Your task to perform on an android device: Go to Reddit.com Image 0: 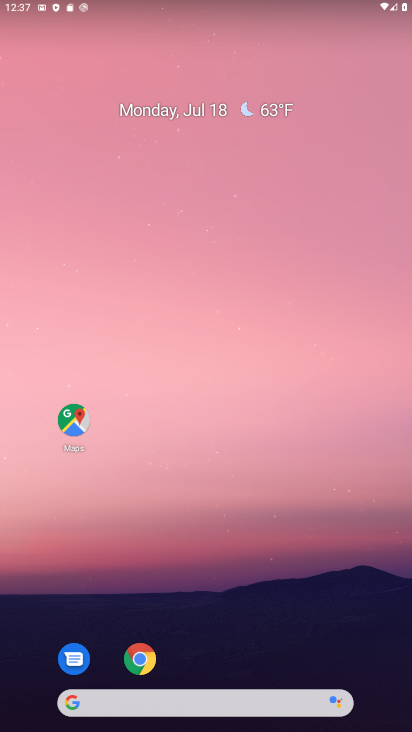
Step 0: drag from (202, 665) to (212, 252)
Your task to perform on an android device: Go to Reddit.com Image 1: 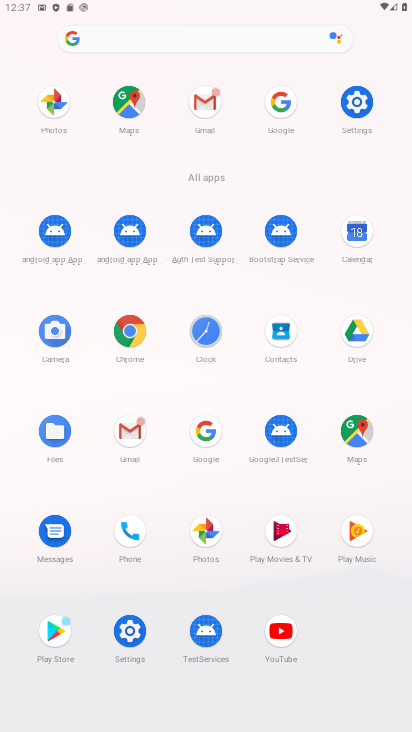
Step 1: click (217, 431)
Your task to perform on an android device: Go to Reddit.com Image 2: 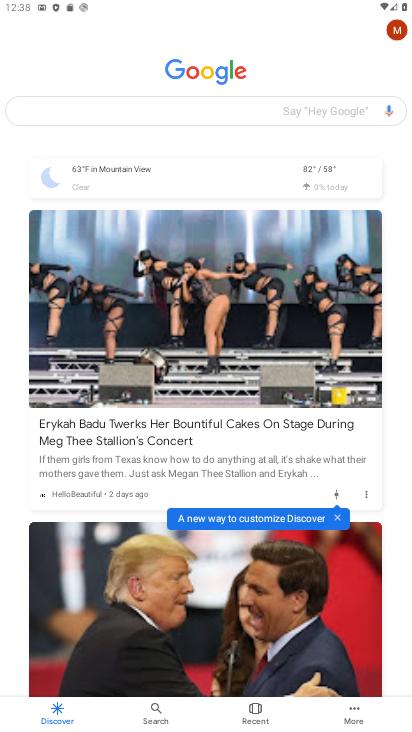
Step 2: click (108, 109)
Your task to perform on an android device: Go to Reddit.com Image 3: 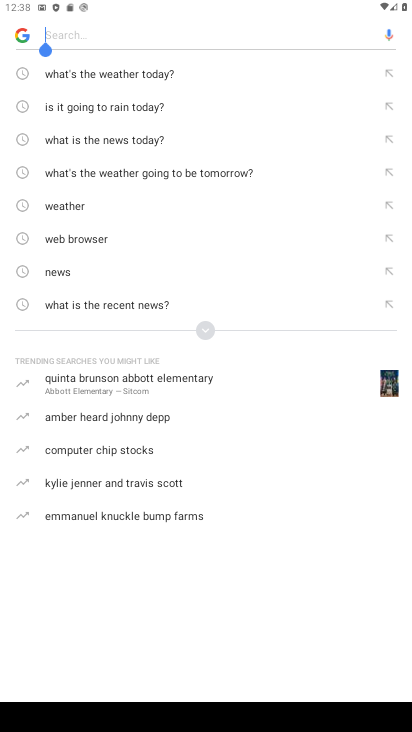
Step 3: click (200, 332)
Your task to perform on an android device: Go to Reddit.com Image 4: 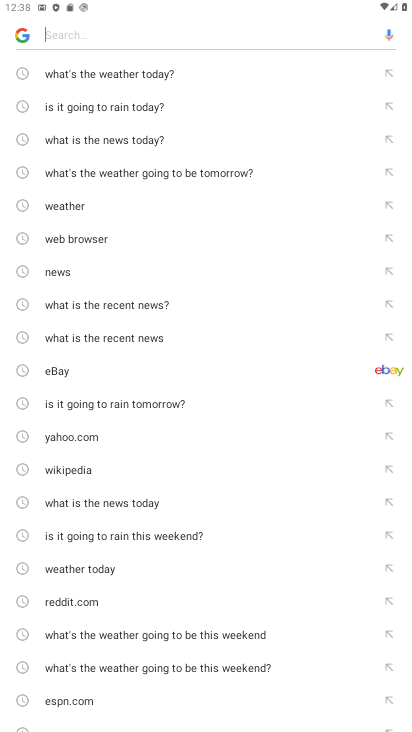
Step 4: click (68, 593)
Your task to perform on an android device: Go to Reddit.com Image 5: 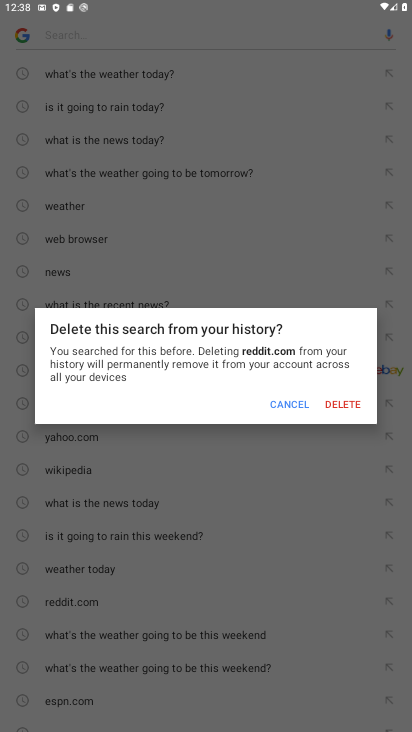
Step 5: click (71, 608)
Your task to perform on an android device: Go to Reddit.com Image 6: 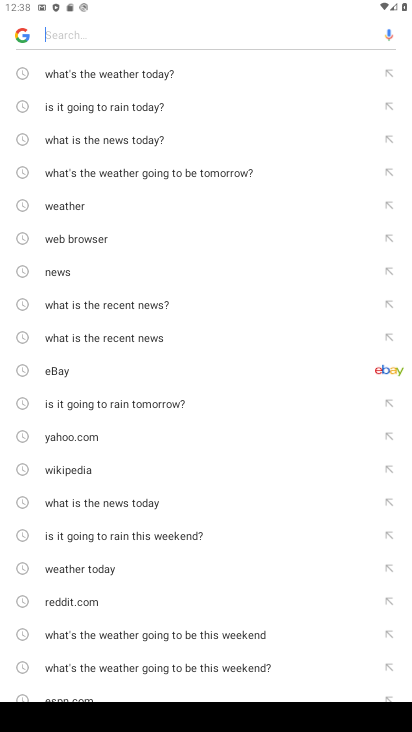
Step 6: click (80, 597)
Your task to perform on an android device: Go to Reddit.com Image 7: 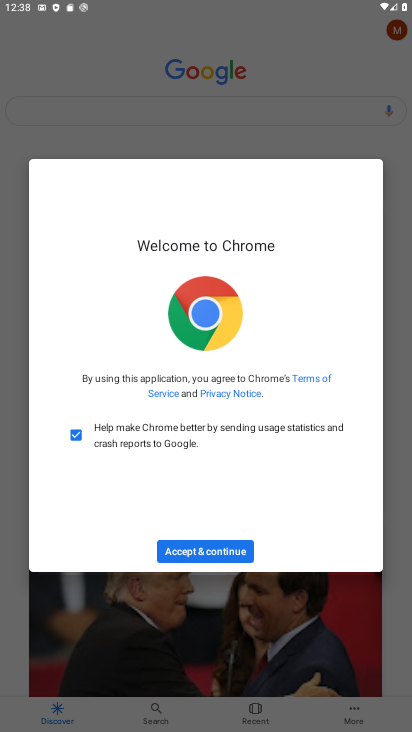
Step 7: click (189, 550)
Your task to perform on an android device: Go to Reddit.com Image 8: 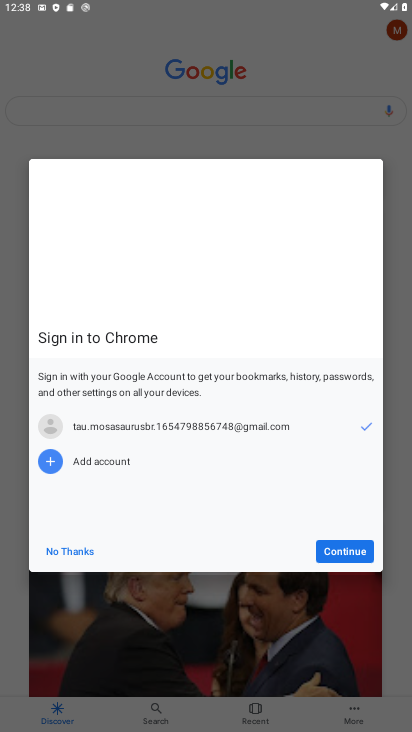
Step 8: click (350, 555)
Your task to perform on an android device: Go to Reddit.com Image 9: 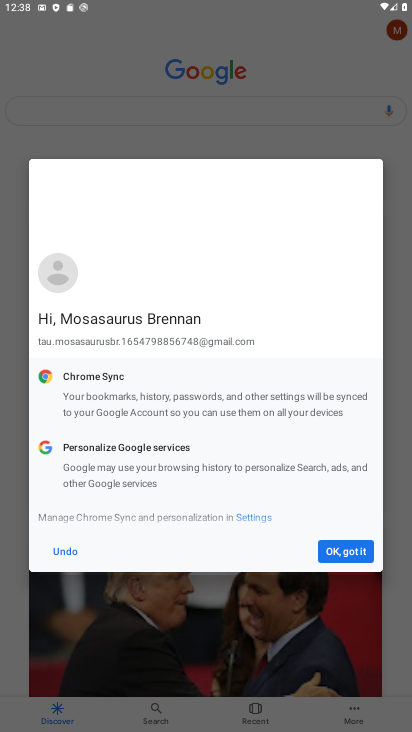
Step 9: click (349, 544)
Your task to perform on an android device: Go to Reddit.com Image 10: 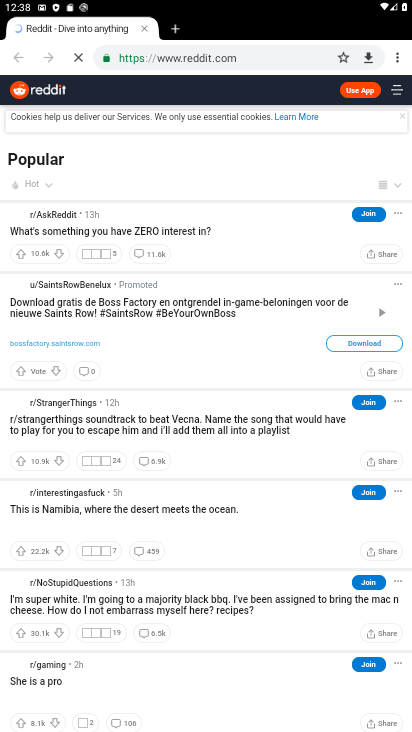
Step 10: task complete